Your task to perform on an android device: set default search engine in the chrome app Image 0: 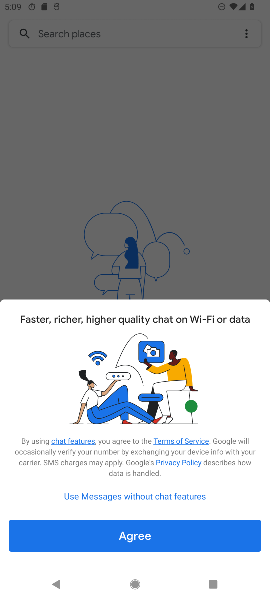
Step 0: press back button
Your task to perform on an android device: set default search engine in the chrome app Image 1: 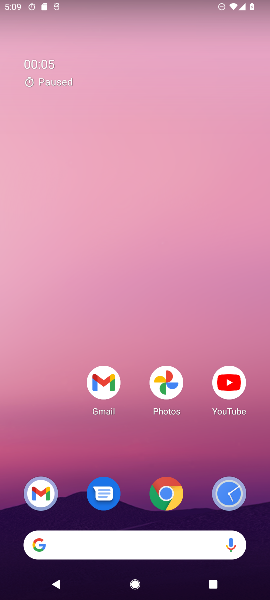
Step 1: click (163, 154)
Your task to perform on an android device: set default search engine in the chrome app Image 2: 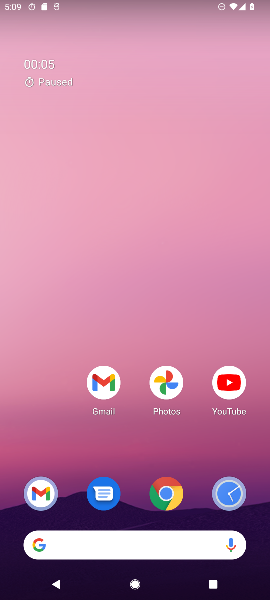
Step 2: drag from (172, 364) to (156, 155)
Your task to perform on an android device: set default search engine in the chrome app Image 3: 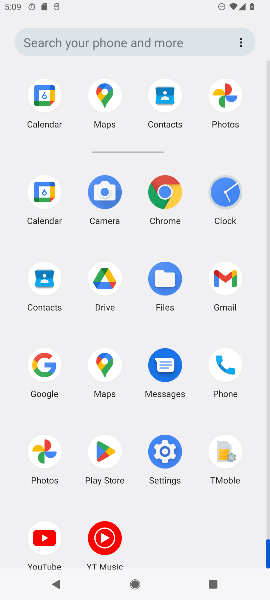
Step 3: click (168, 197)
Your task to perform on an android device: set default search engine in the chrome app Image 4: 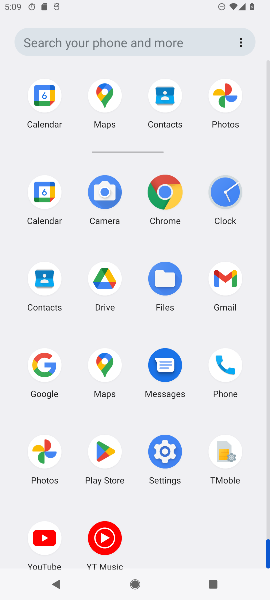
Step 4: click (168, 197)
Your task to perform on an android device: set default search engine in the chrome app Image 5: 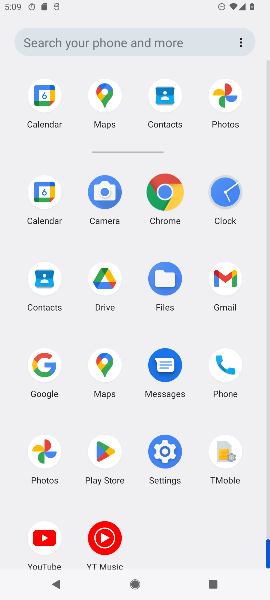
Step 5: click (168, 197)
Your task to perform on an android device: set default search engine in the chrome app Image 6: 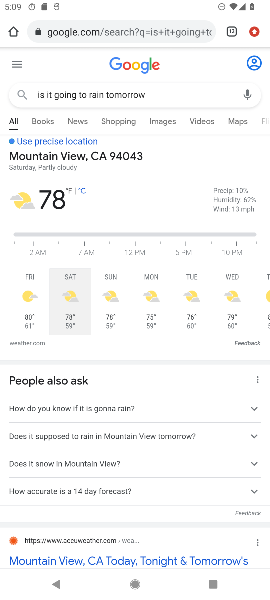
Step 6: press back button
Your task to perform on an android device: set default search engine in the chrome app Image 7: 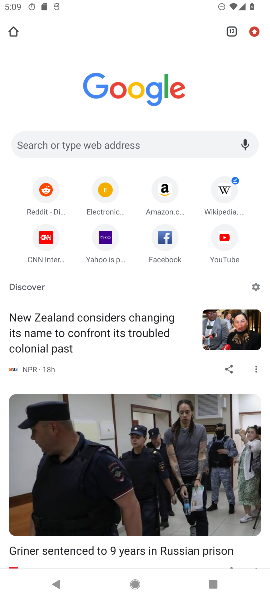
Step 7: drag from (247, 27) to (161, 298)
Your task to perform on an android device: set default search engine in the chrome app Image 8: 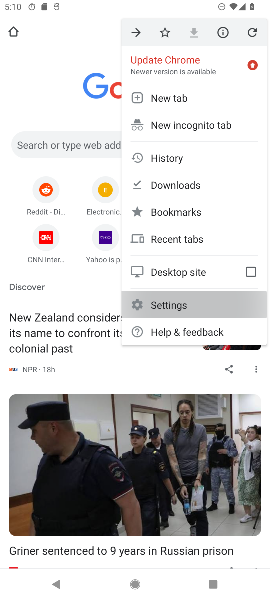
Step 8: click (161, 299)
Your task to perform on an android device: set default search engine in the chrome app Image 9: 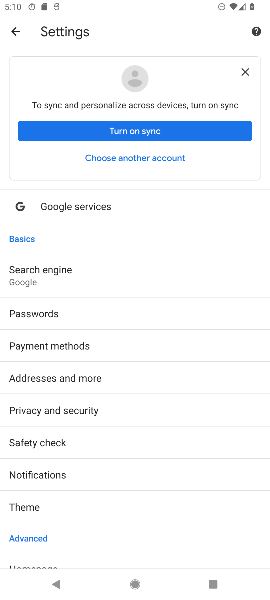
Step 9: click (32, 277)
Your task to perform on an android device: set default search engine in the chrome app Image 10: 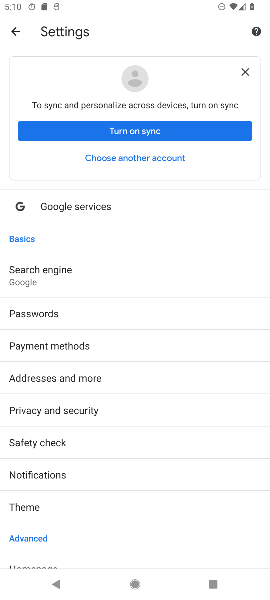
Step 10: click (38, 272)
Your task to perform on an android device: set default search engine in the chrome app Image 11: 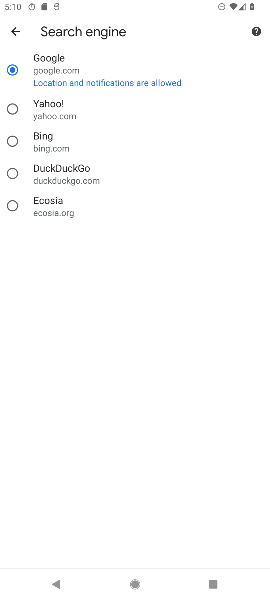
Step 11: click (16, 99)
Your task to perform on an android device: set default search engine in the chrome app Image 12: 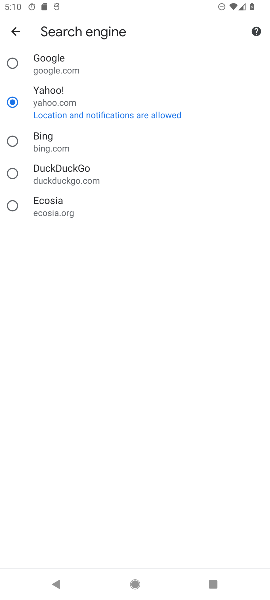
Step 12: task complete